Your task to perform on an android device: Go to settings Image 0: 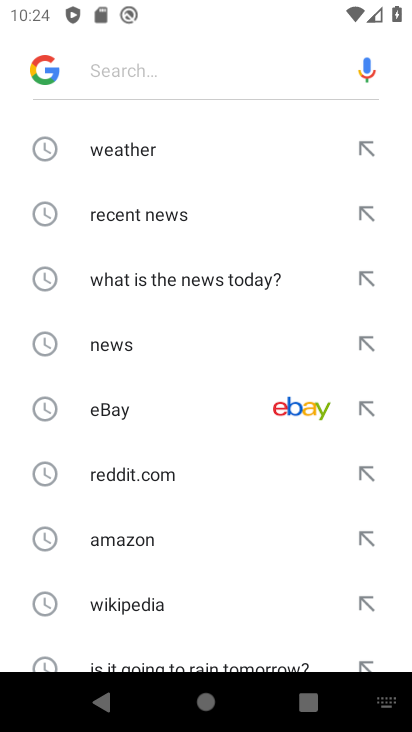
Step 0: press home button
Your task to perform on an android device: Go to settings Image 1: 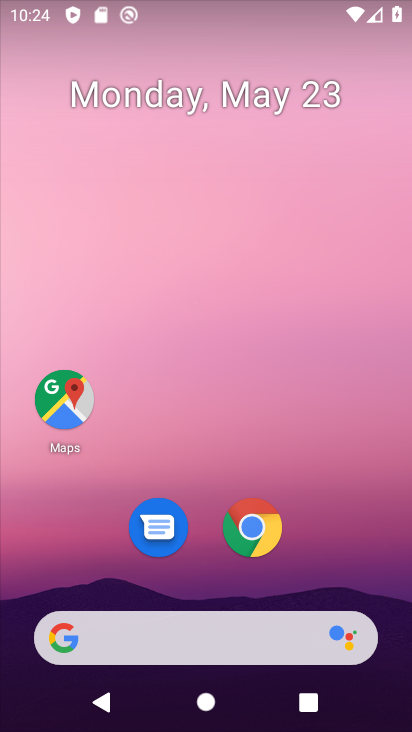
Step 1: drag from (362, 527) to (349, 178)
Your task to perform on an android device: Go to settings Image 2: 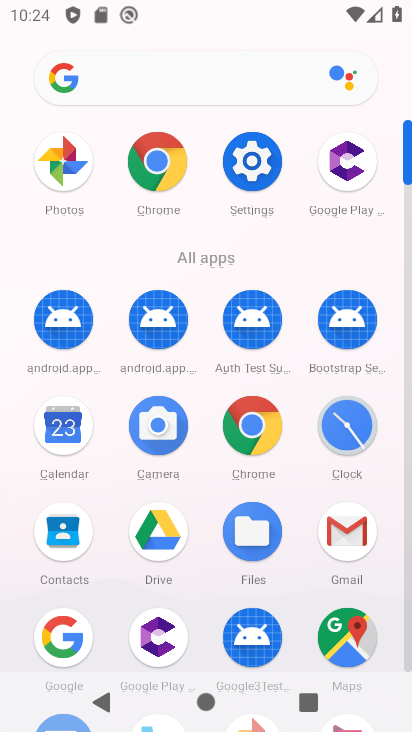
Step 2: click (251, 163)
Your task to perform on an android device: Go to settings Image 3: 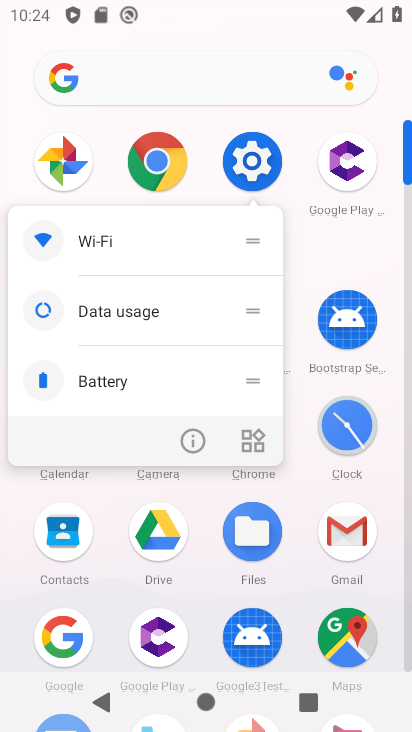
Step 3: click (254, 169)
Your task to perform on an android device: Go to settings Image 4: 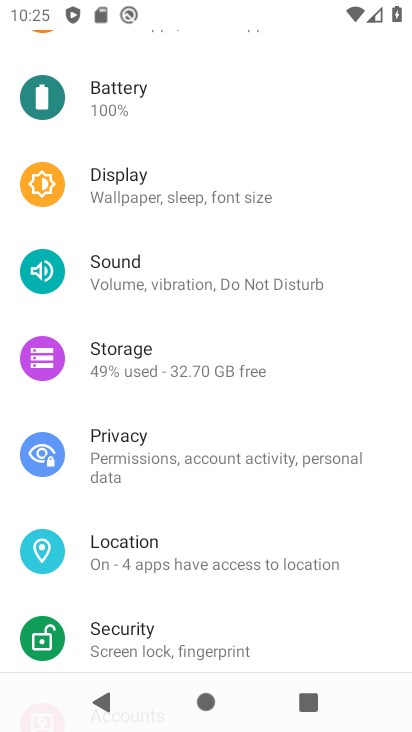
Step 4: task complete